Your task to perform on an android device: open app "Expedia: Hotels, Flights & Car" (install if not already installed) Image 0: 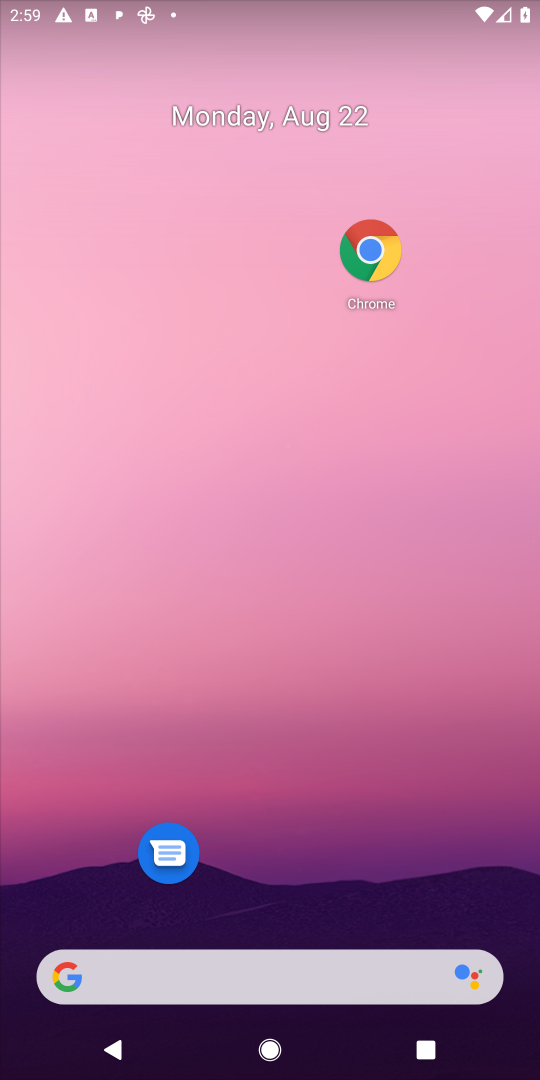
Step 0: drag from (285, 875) to (264, 278)
Your task to perform on an android device: open app "Expedia: Hotels, Flights & Car" (install if not already installed) Image 1: 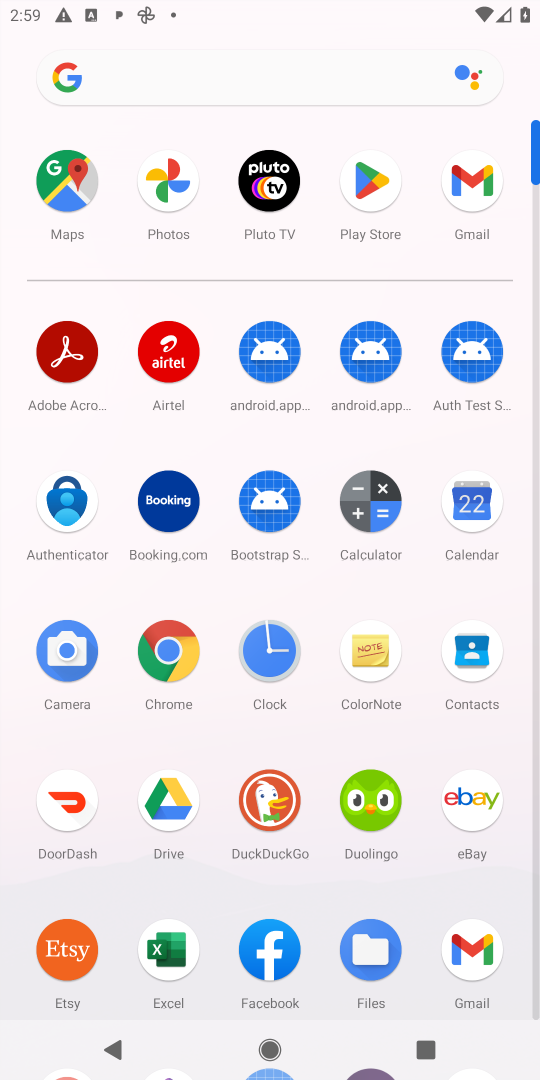
Step 1: click (375, 169)
Your task to perform on an android device: open app "Expedia: Hotels, Flights & Car" (install if not already installed) Image 2: 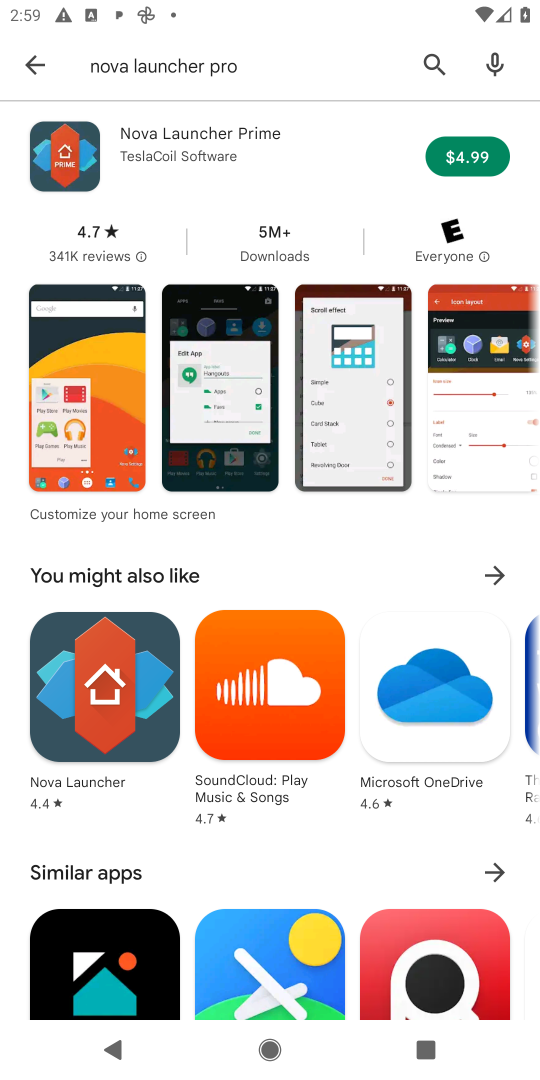
Step 2: click (41, 66)
Your task to perform on an android device: open app "Expedia: Hotels, Flights & Car" (install if not already installed) Image 3: 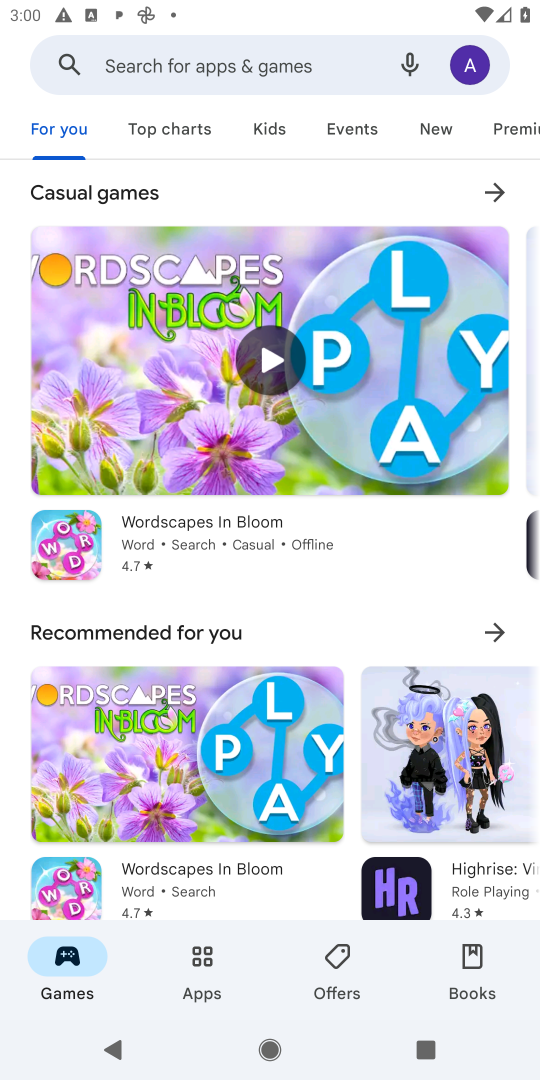
Step 3: click (203, 50)
Your task to perform on an android device: open app "Expedia: Hotels, Flights & Car" (install if not already installed) Image 4: 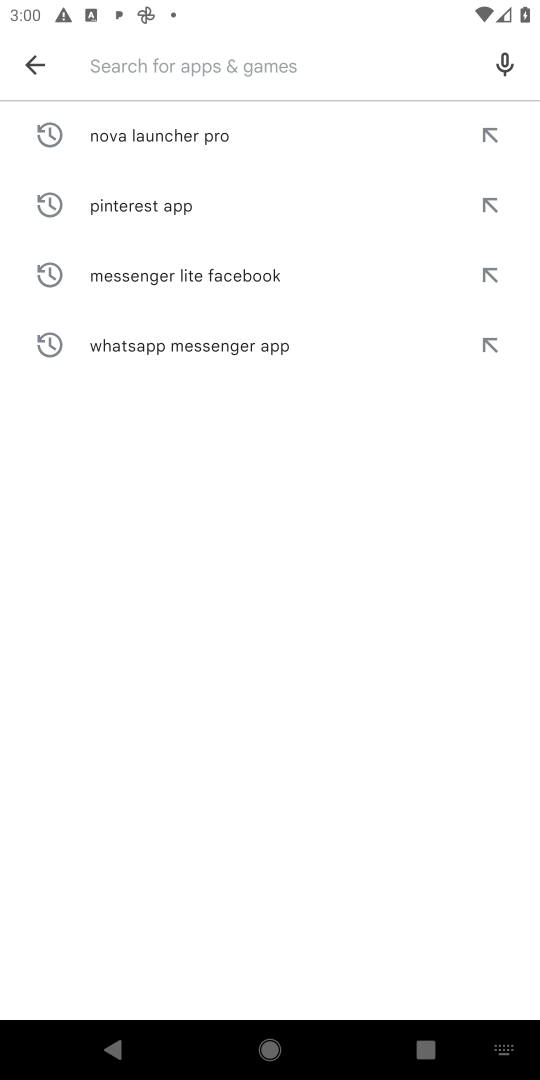
Step 4: type "Expedia: Hotels, Flights & Car "
Your task to perform on an android device: open app "Expedia: Hotels, Flights & Car" (install if not already installed) Image 5: 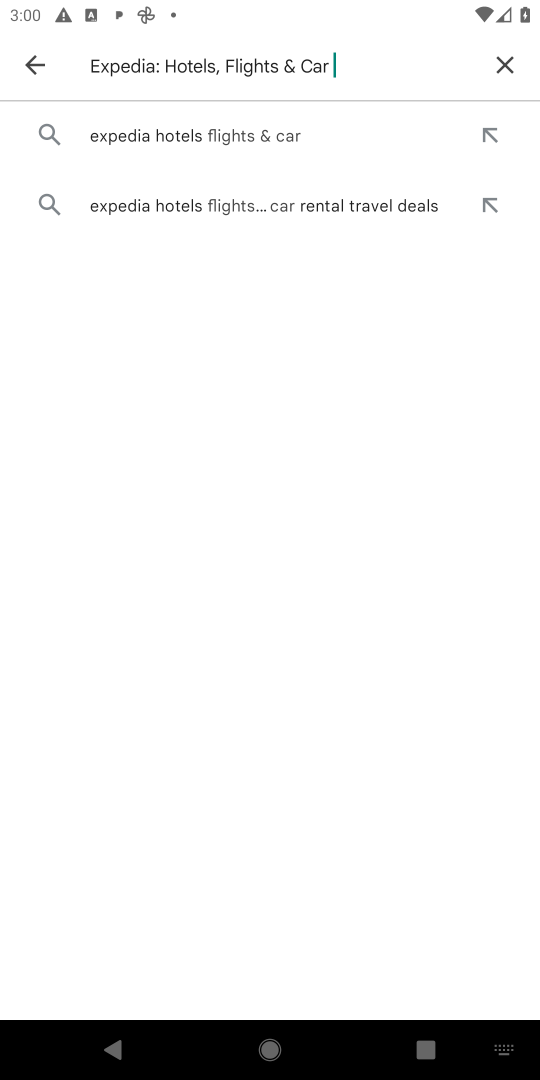
Step 5: click (191, 123)
Your task to perform on an android device: open app "Expedia: Hotels, Flights & Car" (install if not already installed) Image 6: 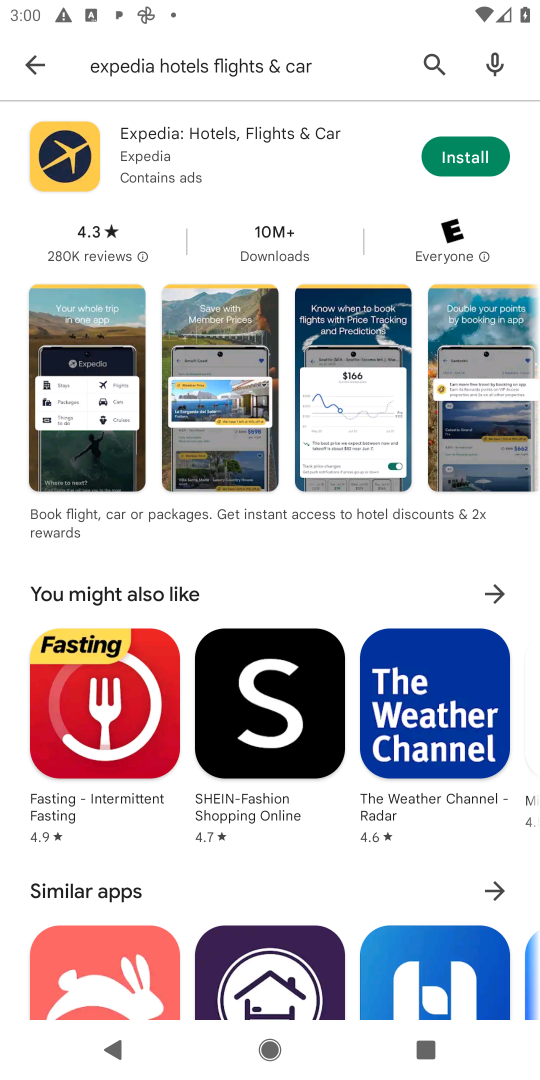
Step 6: click (433, 156)
Your task to perform on an android device: open app "Expedia: Hotels, Flights & Car" (install if not already installed) Image 7: 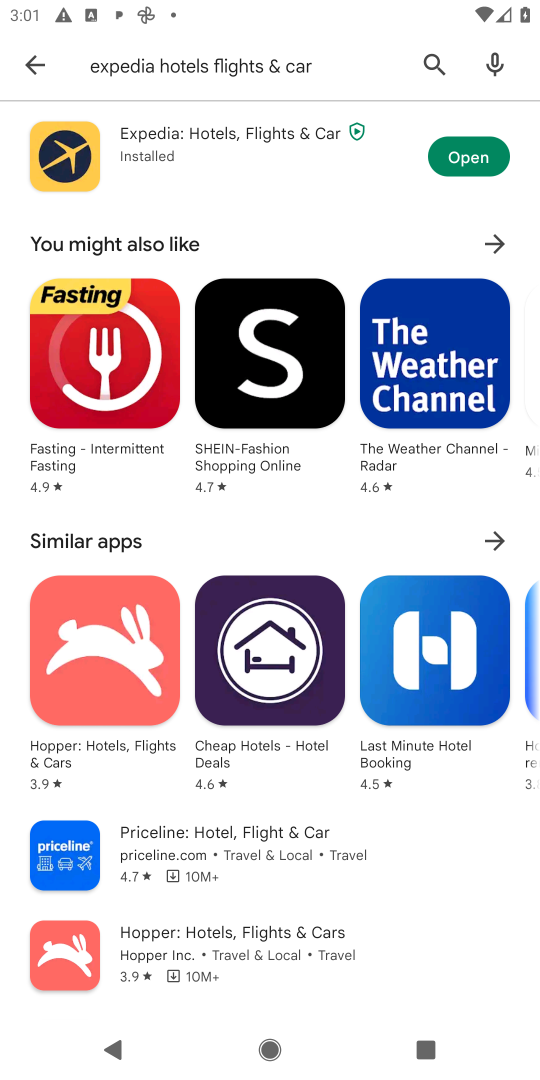
Step 7: click (475, 156)
Your task to perform on an android device: open app "Expedia: Hotels, Flights & Car" (install if not already installed) Image 8: 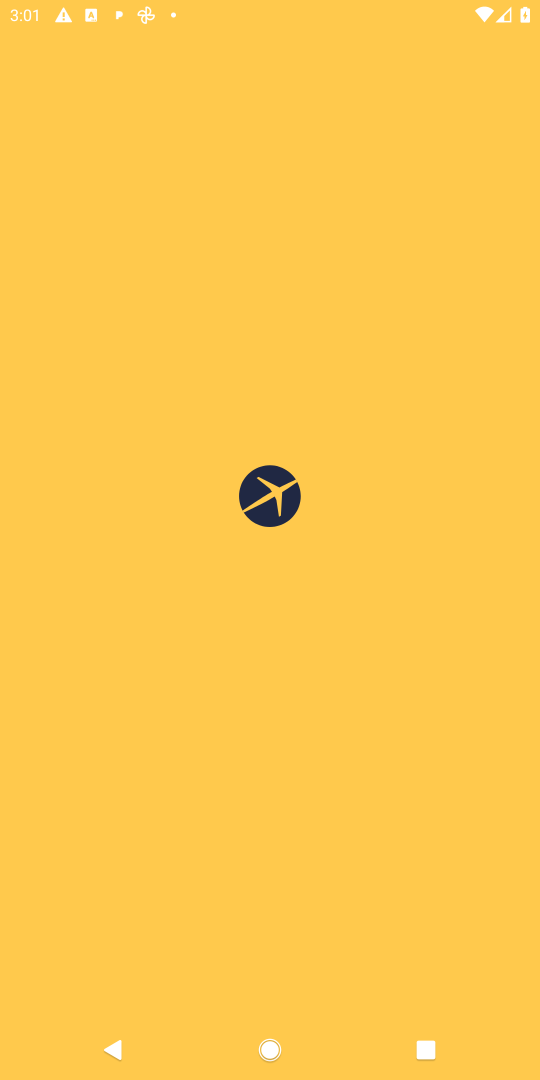
Step 8: task complete